Your task to perform on an android device: remove spam from my inbox in the gmail app Image 0: 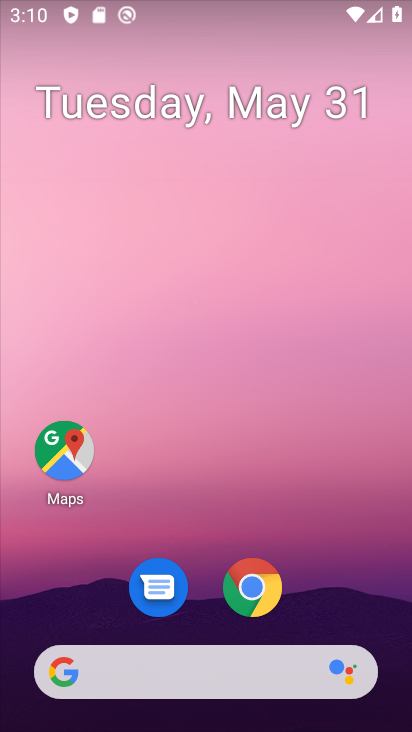
Step 0: drag from (307, 624) to (313, 44)
Your task to perform on an android device: remove spam from my inbox in the gmail app Image 1: 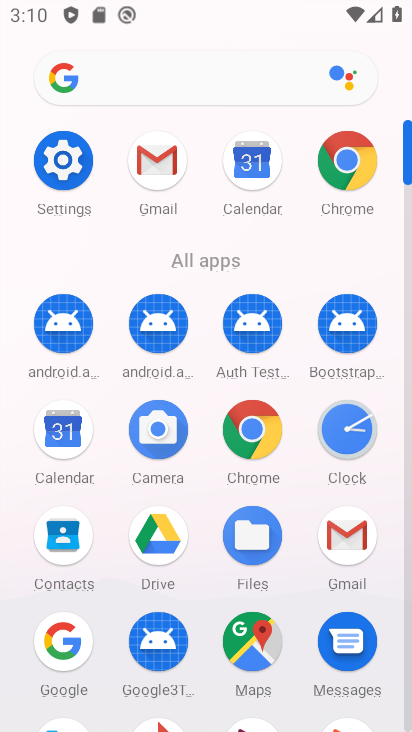
Step 1: click (337, 544)
Your task to perform on an android device: remove spam from my inbox in the gmail app Image 2: 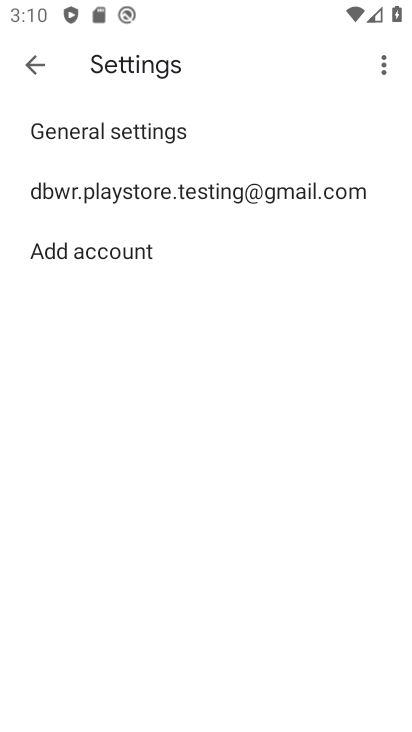
Step 2: click (28, 87)
Your task to perform on an android device: remove spam from my inbox in the gmail app Image 3: 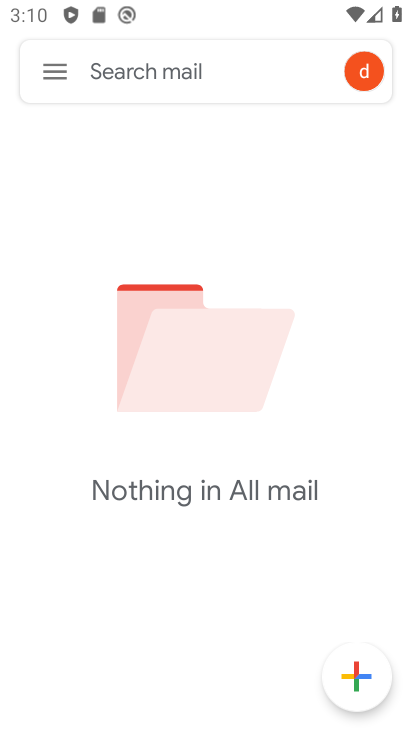
Step 3: click (64, 65)
Your task to perform on an android device: remove spam from my inbox in the gmail app Image 4: 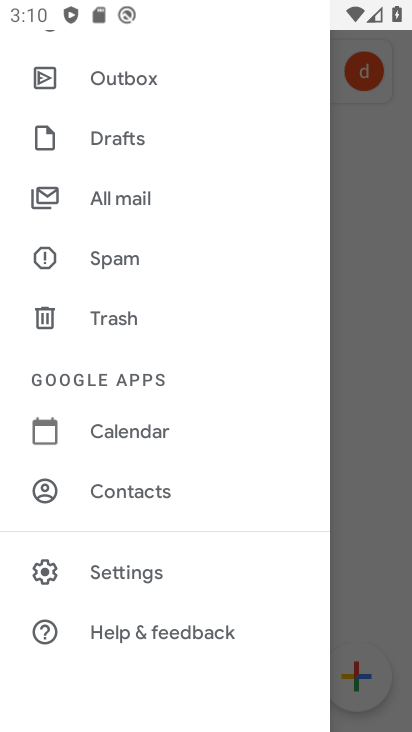
Step 4: click (144, 262)
Your task to perform on an android device: remove spam from my inbox in the gmail app Image 5: 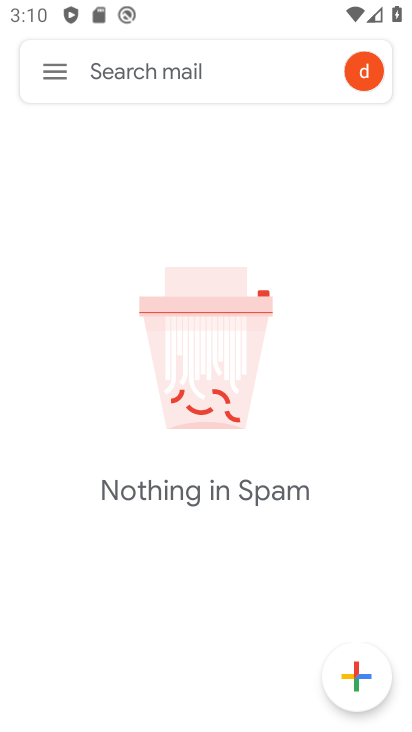
Step 5: task complete